Your task to perform on an android device: Open settings on Google Maps Image 0: 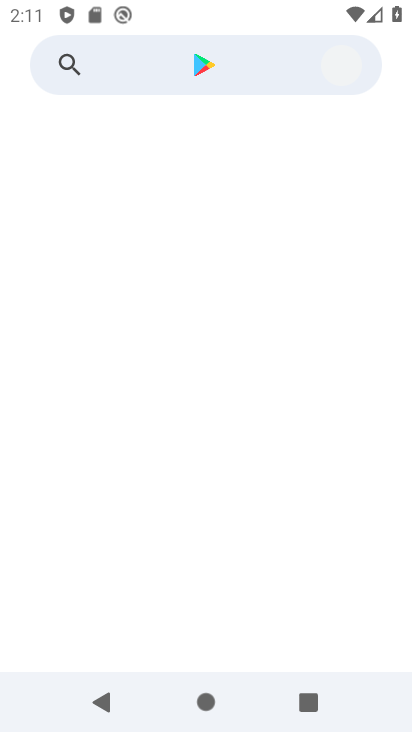
Step 0: press back button
Your task to perform on an android device: Open settings on Google Maps Image 1: 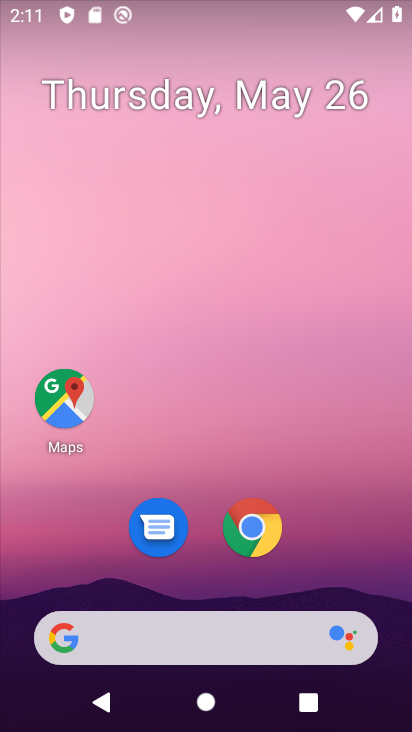
Step 1: click (52, 387)
Your task to perform on an android device: Open settings on Google Maps Image 2: 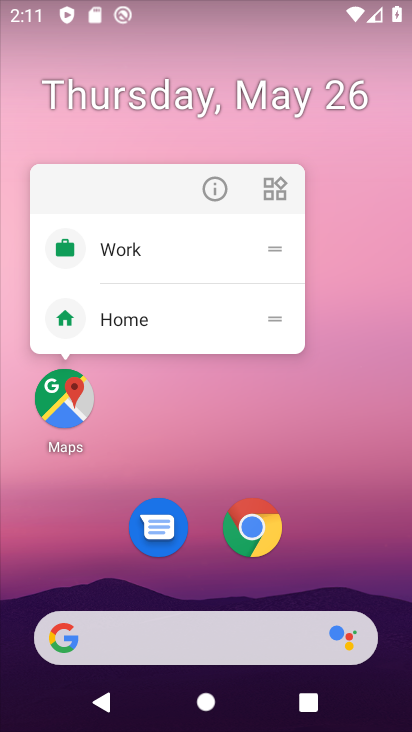
Step 2: click (54, 397)
Your task to perform on an android device: Open settings on Google Maps Image 3: 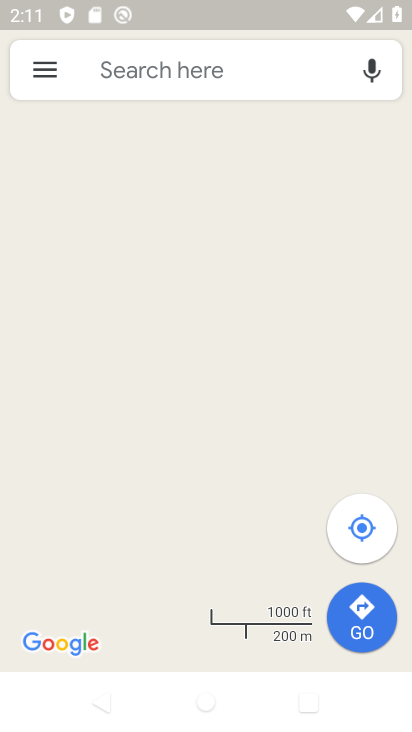
Step 3: click (46, 70)
Your task to perform on an android device: Open settings on Google Maps Image 4: 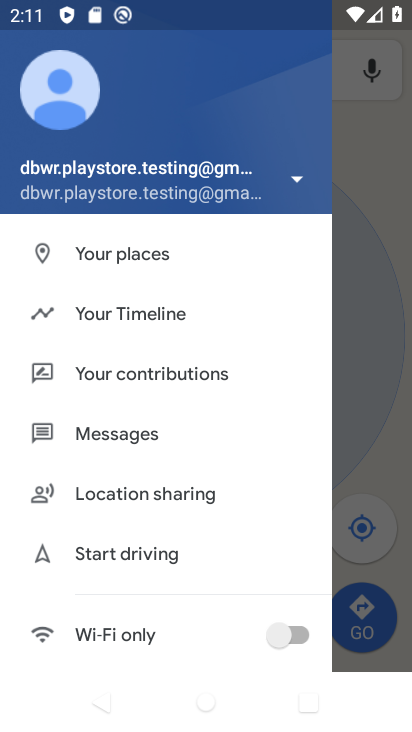
Step 4: drag from (214, 569) to (330, 5)
Your task to perform on an android device: Open settings on Google Maps Image 5: 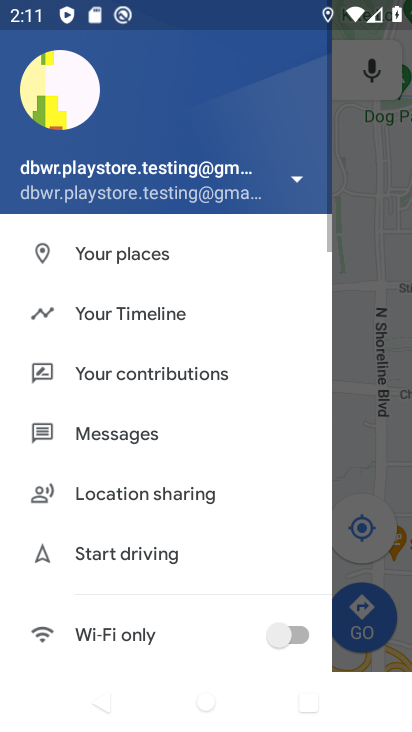
Step 5: drag from (124, 568) to (182, 2)
Your task to perform on an android device: Open settings on Google Maps Image 6: 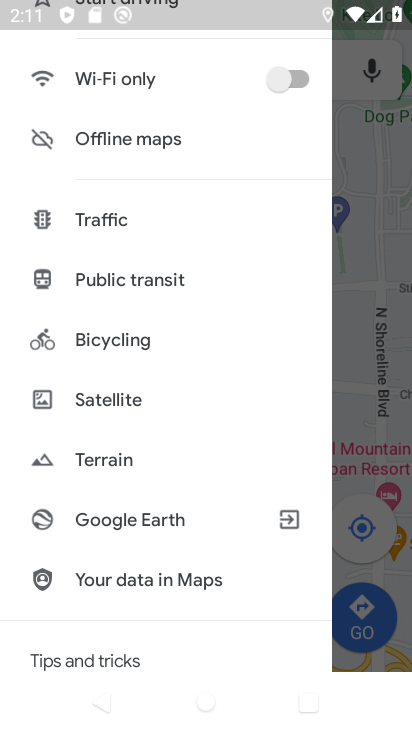
Step 6: drag from (141, 625) to (217, 22)
Your task to perform on an android device: Open settings on Google Maps Image 7: 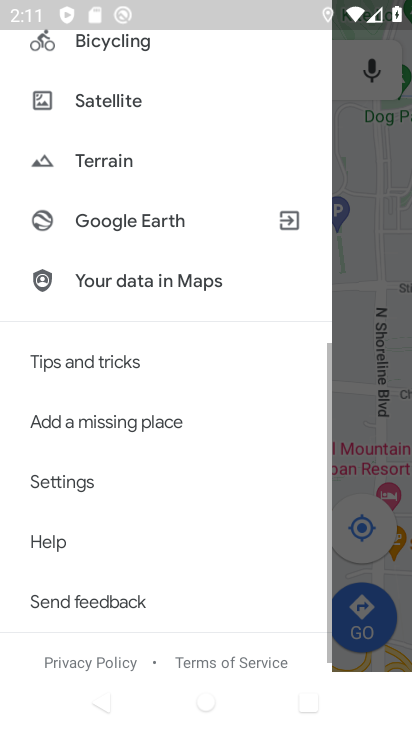
Step 7: drag from (61, 440) to (113, 196)
Your task to perform on an android device: Open settings on Google Maps Image 8: 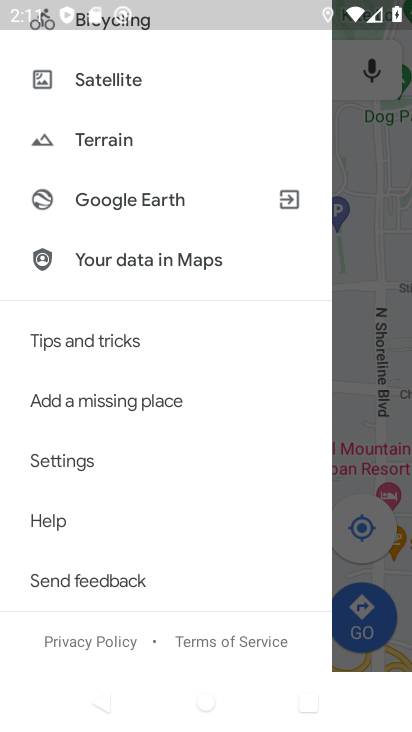
Step 8: click (78, 468)
Your task to perform on an android device: Open settings on Google Maps Image 9: 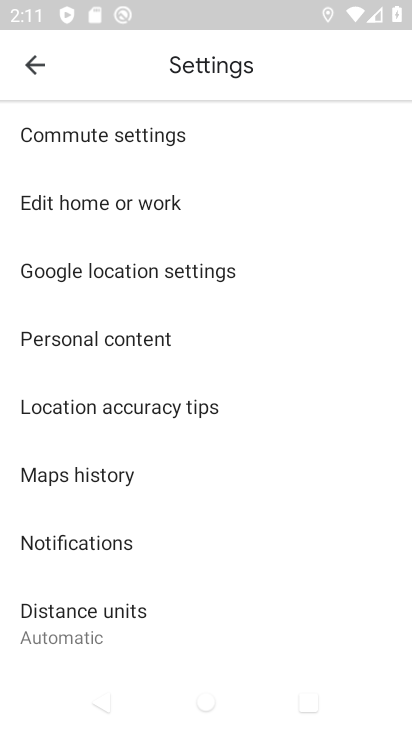
Step 9: task complete